Your task to perform on an android device: Open CNN.com Image 0: 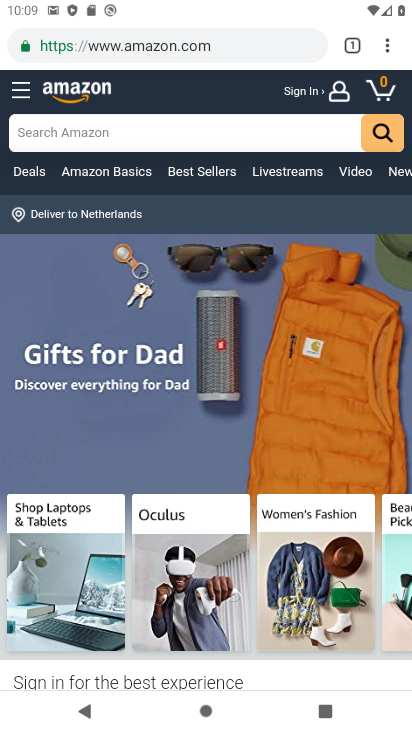
Step 0: press home button
Your task to perform on an android device: Open CNN.com Image 1: 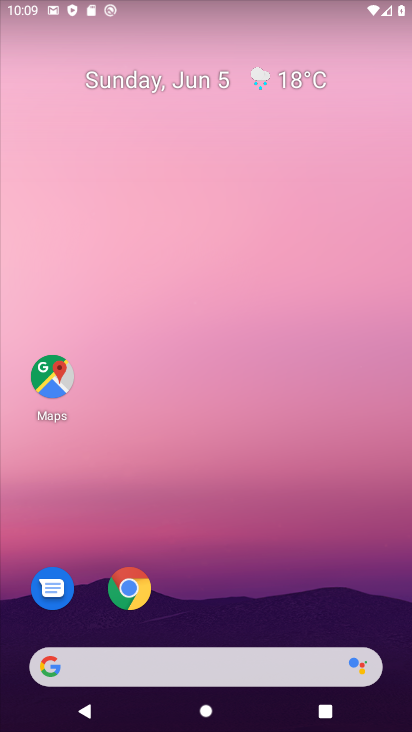
Step 1: drag from (272, 592) to (280, 168)
Your task to perform on an android device: Open CNN.com Image 2: 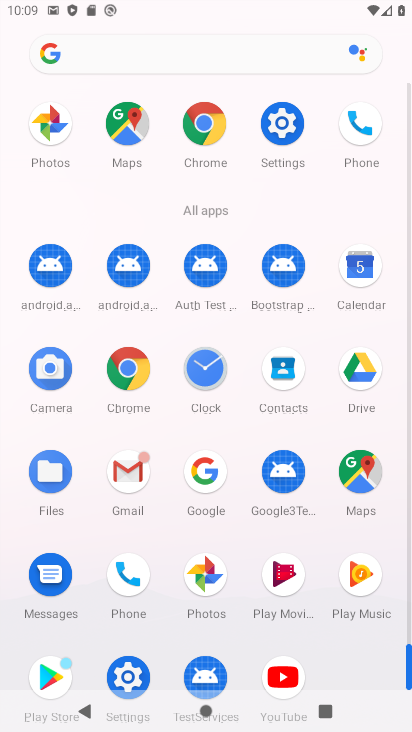
Step 2: click (137, 373)
Your task to perform on an android device: Open CNN.com Image 3: 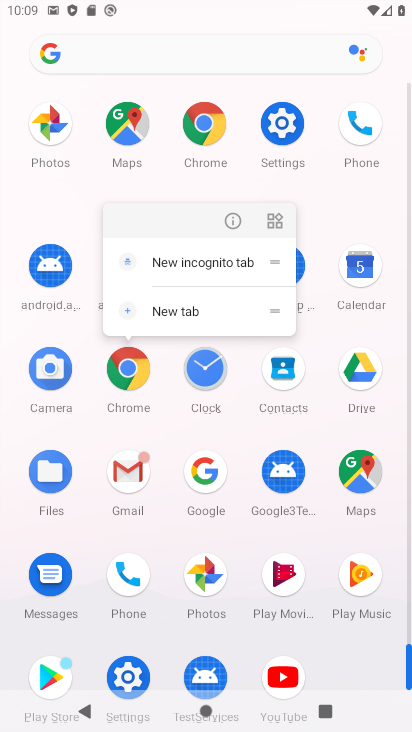
Step 3: click (134, 380)
Your task to perform on an android device: Open CNN.com Image 4: 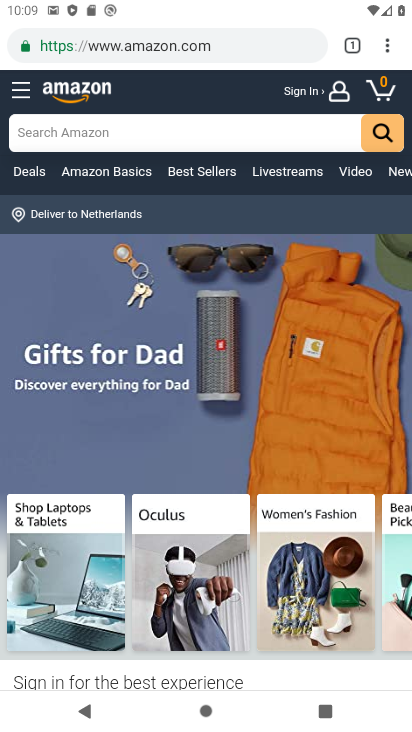
Step 4: click (257, 42)
Your task to perform on an android device: Open CNN.com Image 5: 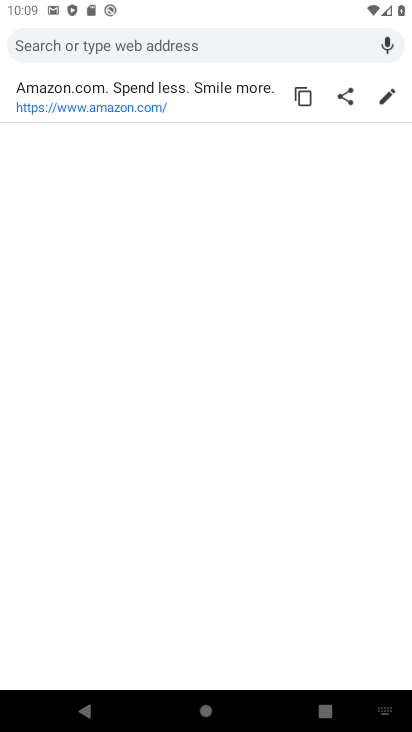
Step 5: type "cnn.com"
Your task to perform on an android device: Open CNN.com Image 6: 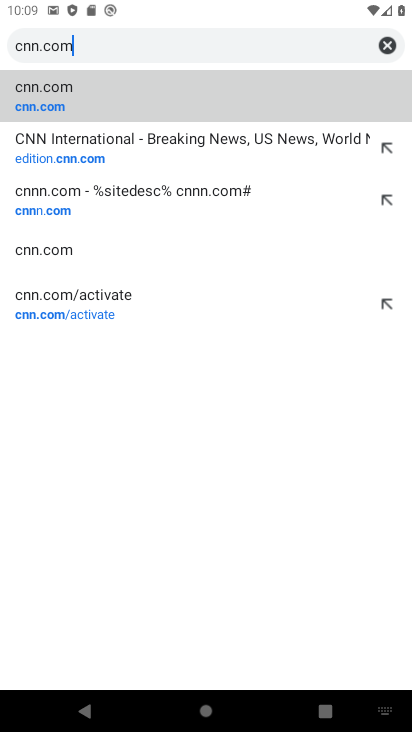
Step 6: click (79, 104)
Your task to perform on an android device: Open CNN.com Image 7: 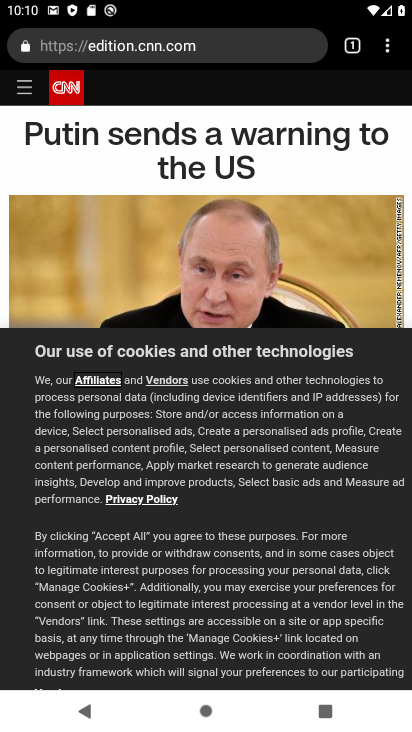
Step 7: task complete